Your task to perform on an android device: toggle sleep mode Image 0: 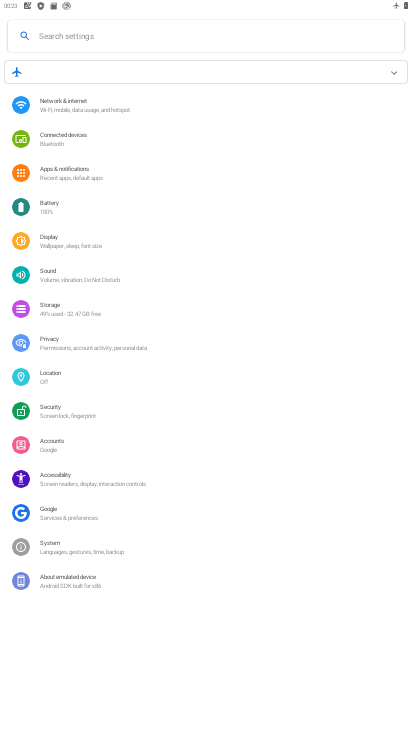
Step 0: click (68, 244)
Your task to perform on an android device: toggle sleep mode Image 1: 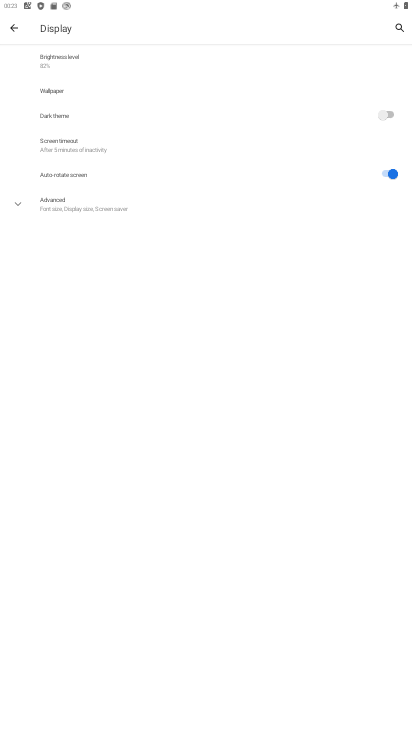
Step 1: click (51, 143)
Your task to perform on an android device: toggle sleep mode Image 2: 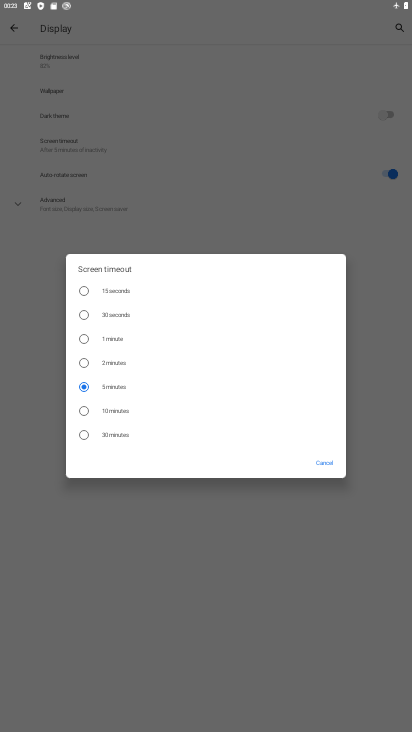
Step 2: click (97, 308)
Your task to perform on an android device: toggle sleep mode Image 3: 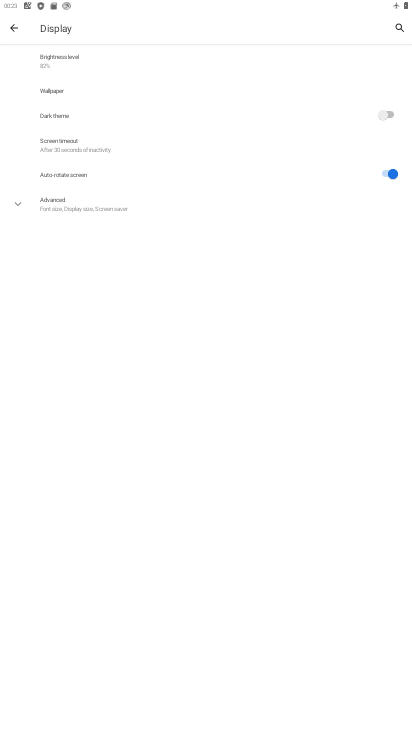
Step 3: task complete